Your task to perform on an android device: Go to wifi settings Image 0: 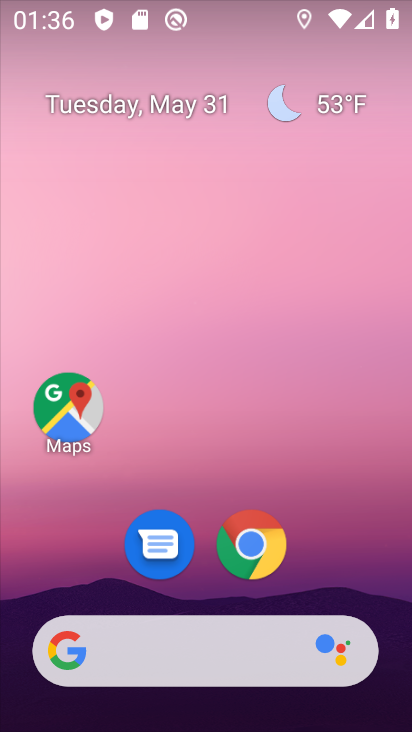
Step 0: drag from (212, 14) to (192, 457)
Your task to perform on an android device: Go to wifi settings Image 1: 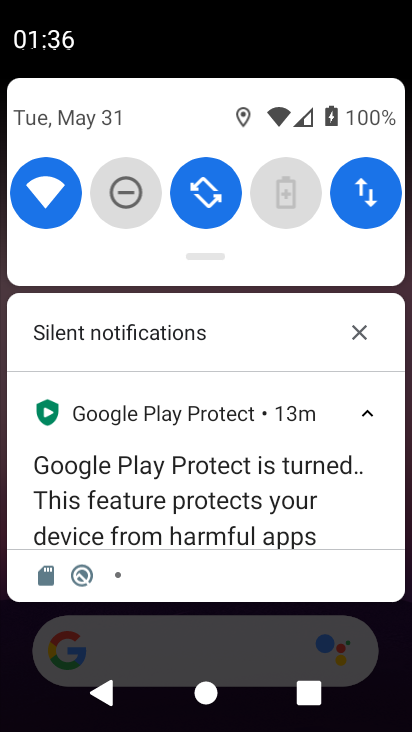
Step 1: click (46, 194)
Your task to perform on an android device: Go to wifi settings Image 2: 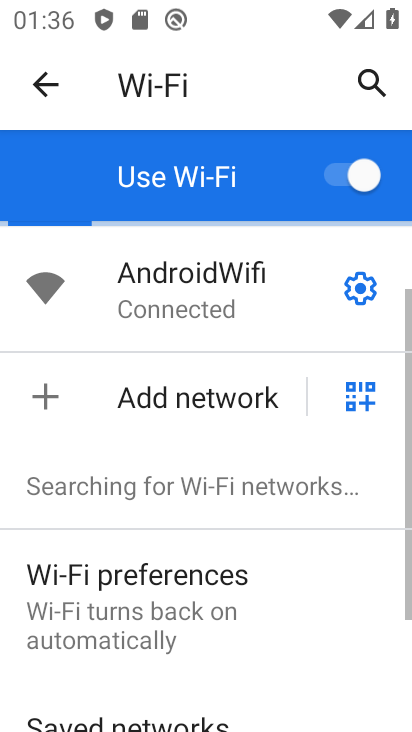
Step 2: task complete